Your task to perform on an android device: turn off data saver in the chrome app Image 0: 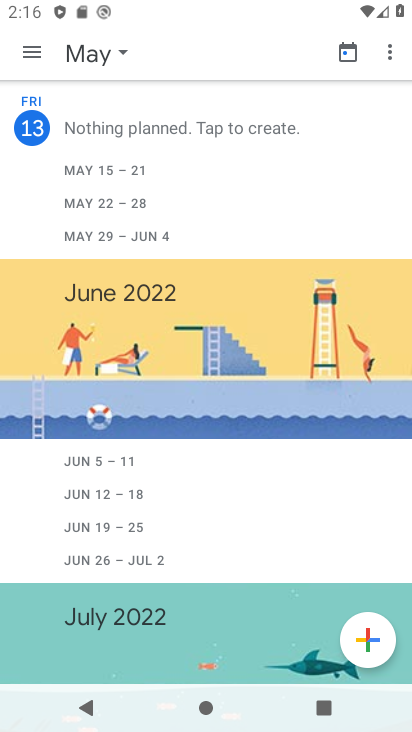
Step 0: press home button
Your task to perform on an android device: turn off data saver in the chrome app Image 1: 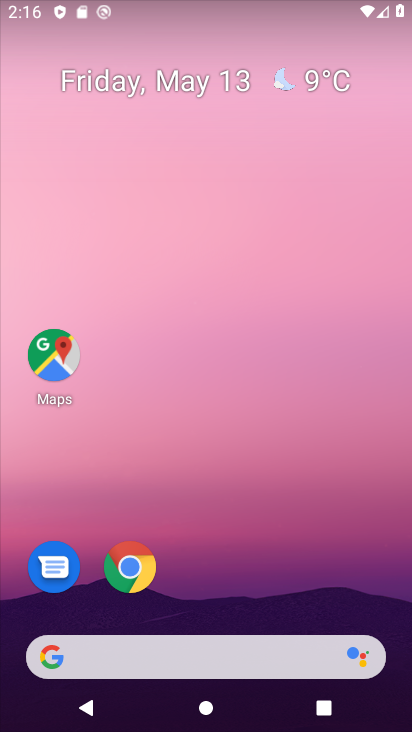
Step 1: click (135, 564)
Your task to perform on an android device: turn off data saver in the chrome app Image 2: 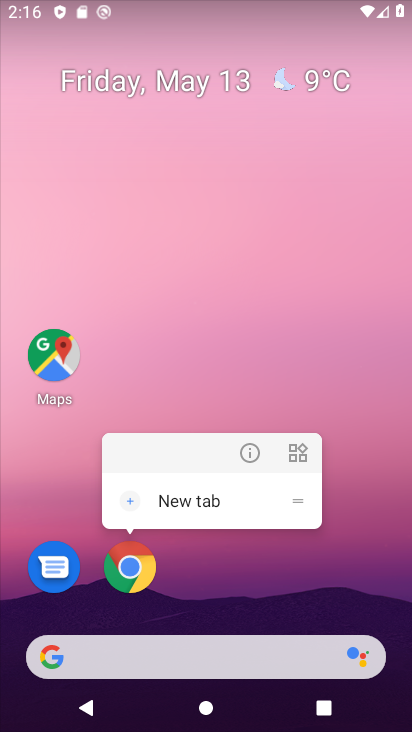
Step 2: click (132, 574)
Your task to perform on an android device: turn off data saver in the chrome app Image 3: 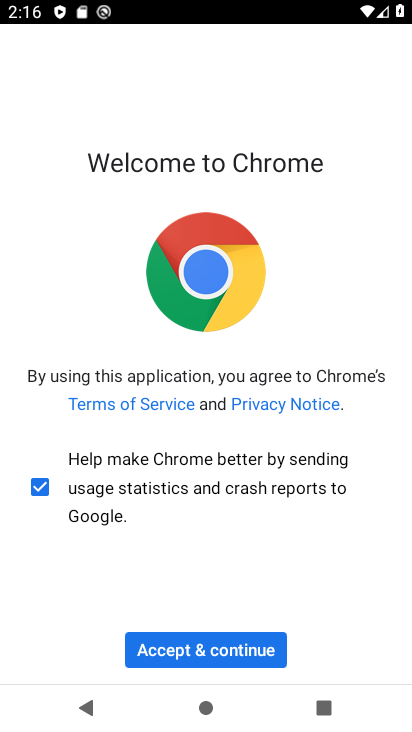
Step 3: click (197, 664)
Your task to perform on an android device: turn off data saver in the chrome app Image 4: 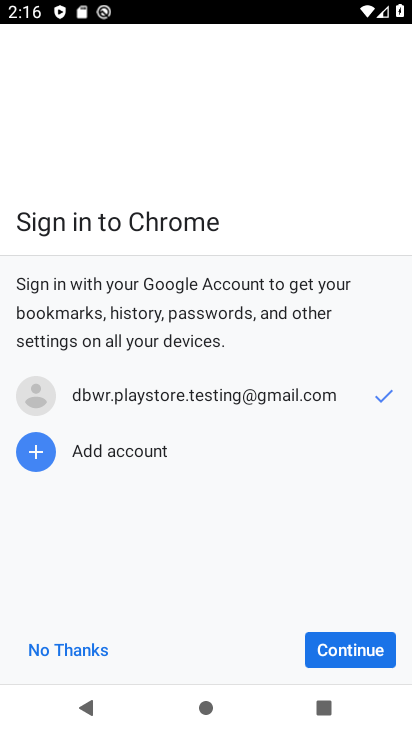
Step 4: click (61, 658)
Your task to perform on an android device: turn off data saver in the chrome app Image 5: 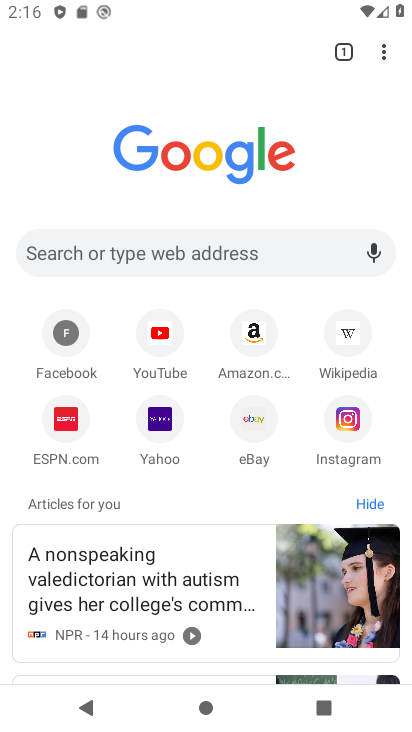
Step 5: drag from (388, 49) to (198, 435)
Your task to perform on an android device: turn off data saver in the chrome app Image 6: 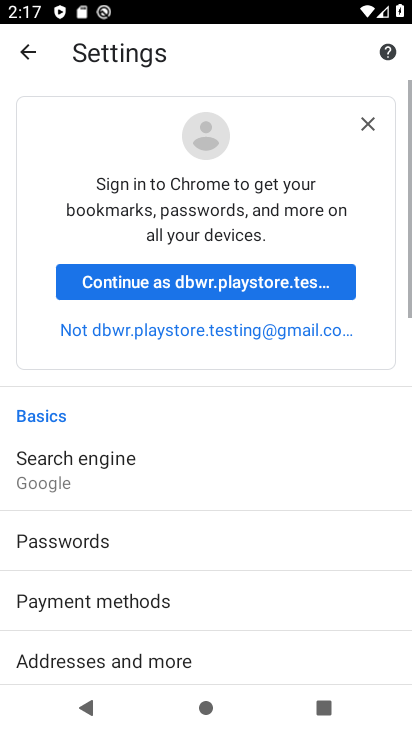
Step 6: drag from (222, 644) to (204, 193)
Your task to perform on an android device: turn off data saver in the chrome app Image 7: 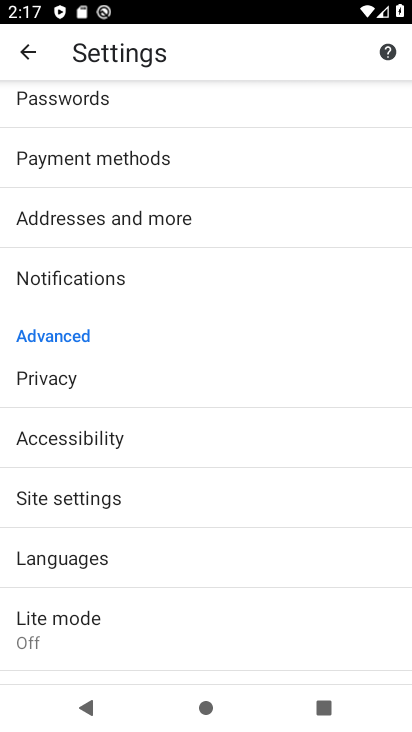
Step 7: click (79, 618)
Your task to perform on an android device: turn off data saver in the chrome app Image 8: 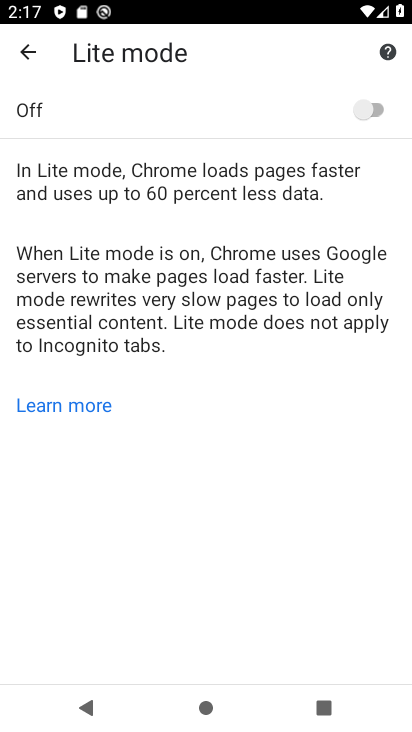
Step 8: task complete